Your task to perform on an android device: open app "Nova Launcher" Image 0: 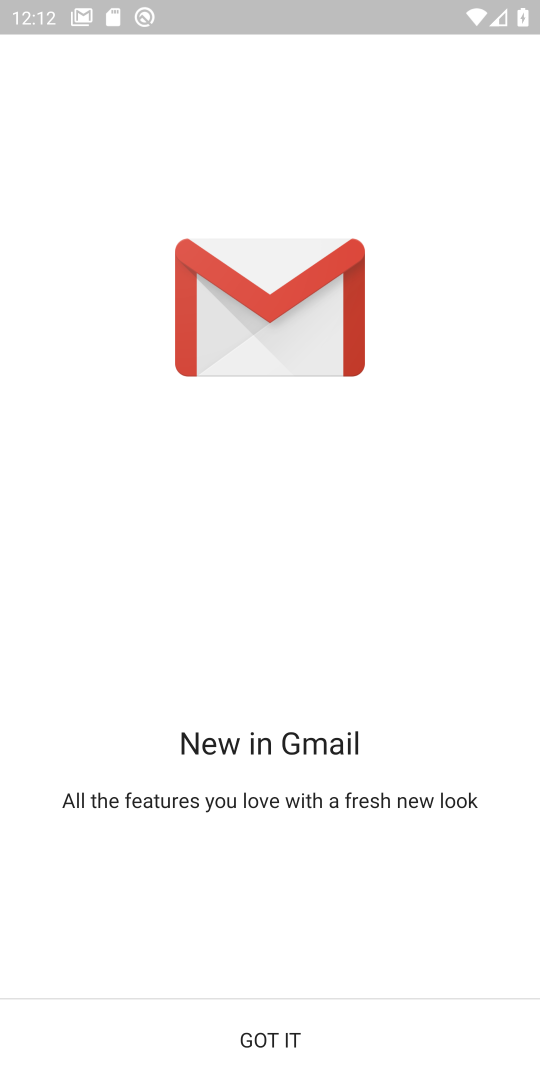
Step 0: press home button
Your task to perform on an android device: open app "Nova Launcher" Image 1: 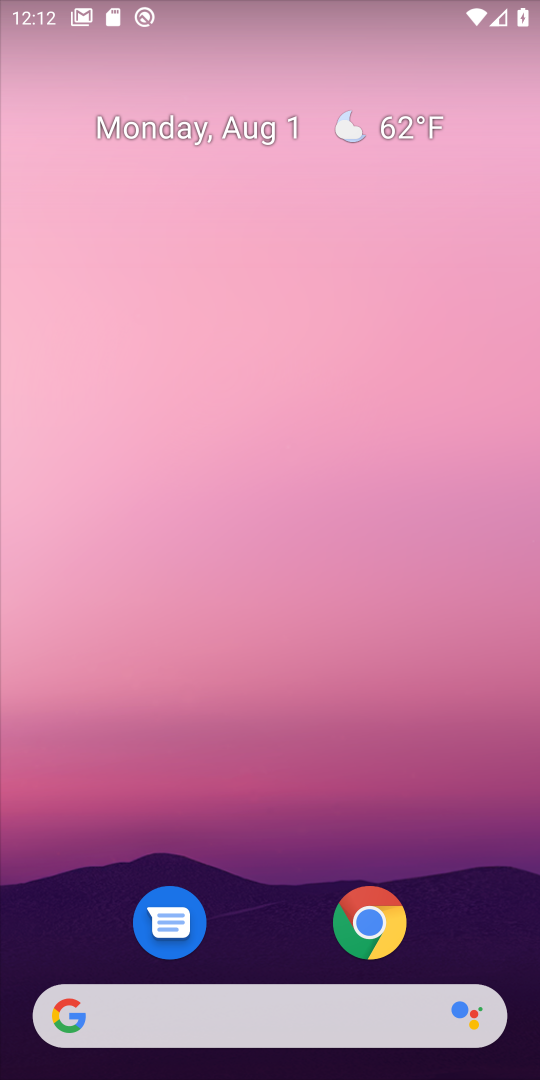
Step 1: drag from (277, 724) to (277, 263)
Your task to perform on an android device: open app "Nova Launcher" Image 2: 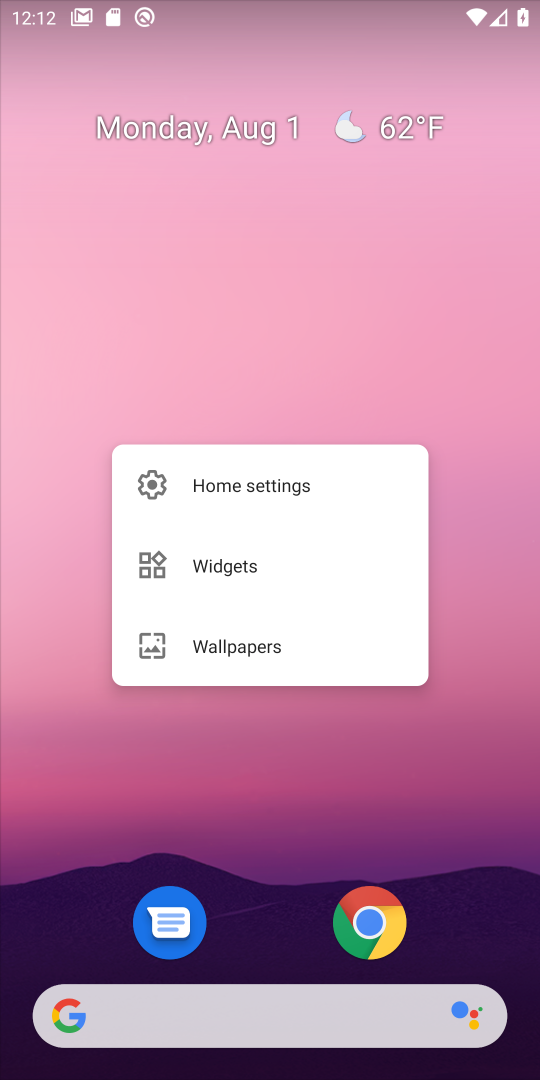
Step 2: click (294, 758)
Your task to perform on an android device: open app "Nova Launcher" Image 3: 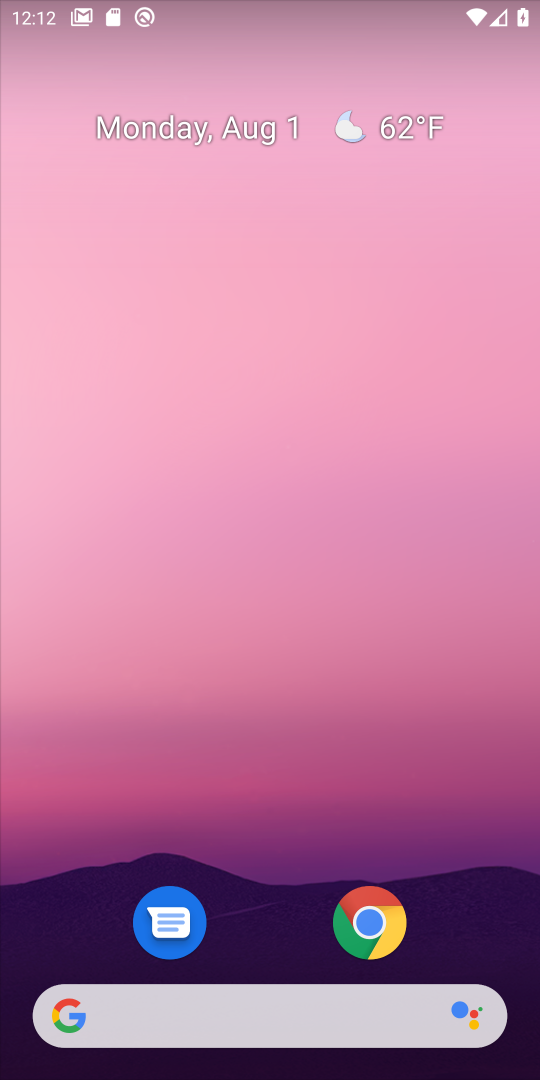
Step 3: drag from (259, 870) to (285, 197)
Your task to perform on an android device: open app "Nova Launcher" Image 4: 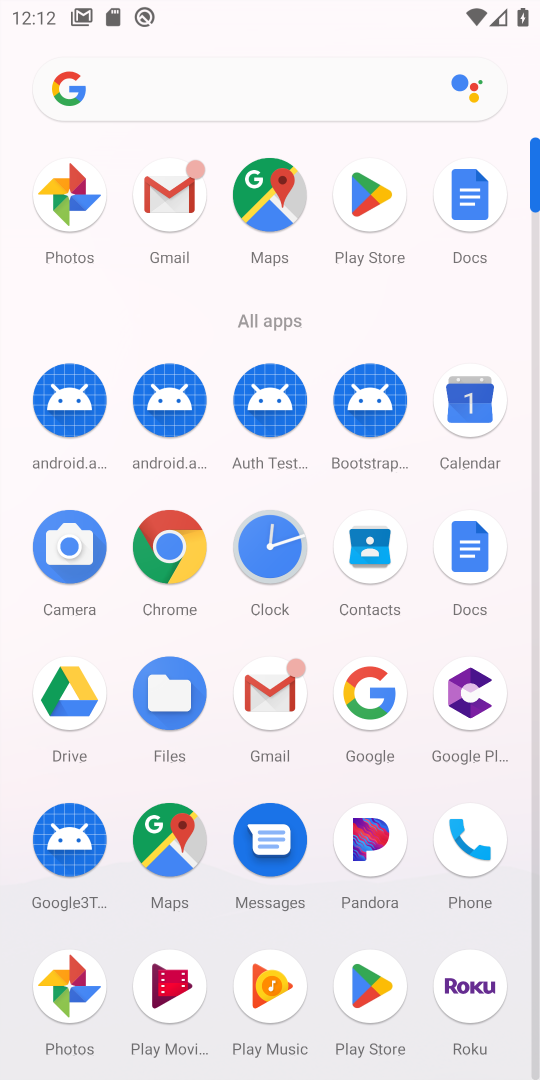
Step 4: click (348, 242)
Your task to perform on an android device: open app "Nova Launcher" Image 5: 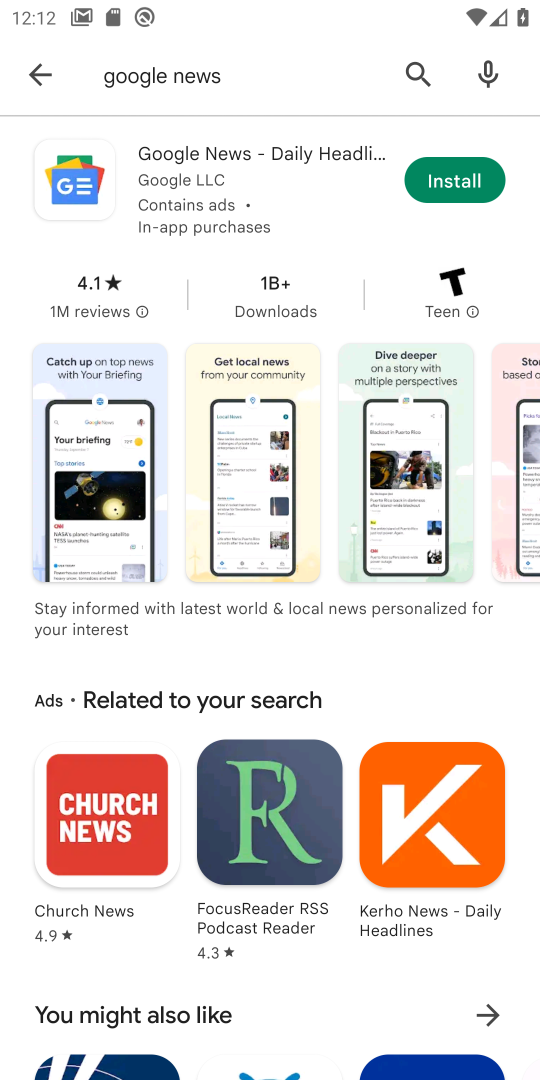
Step 5: click (397, 67)
Your task to perform on an android device: open app "Nova Launcher" Image 6: 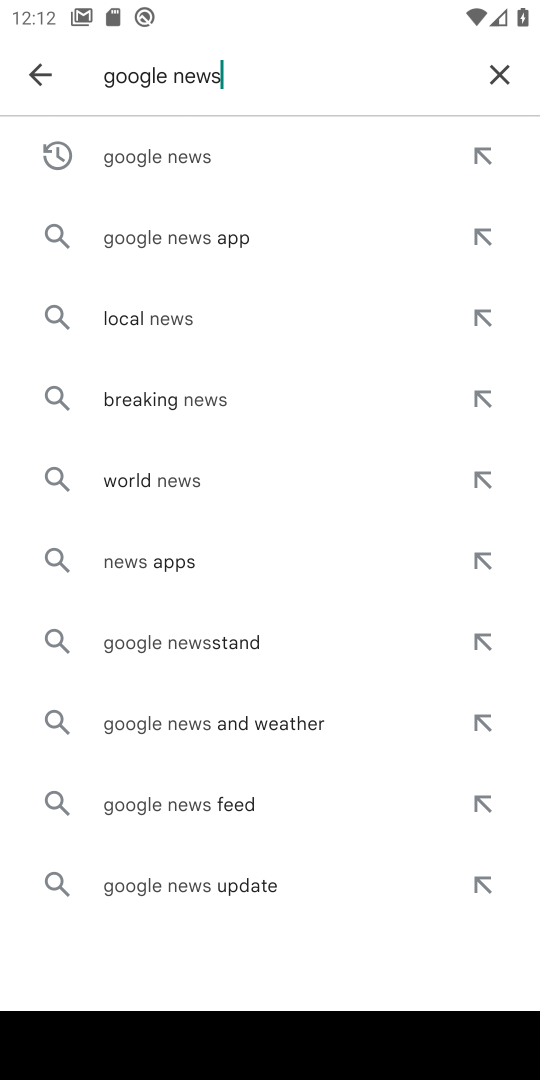
Step 6: click (490, 72)
Your task to perform on an android device: open app "Nova Launcher" Image 7: 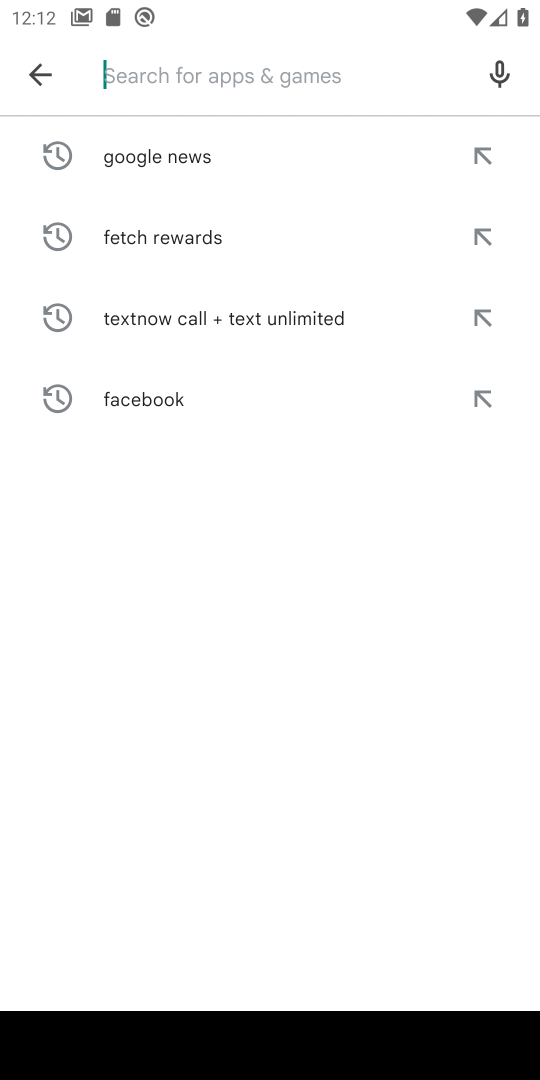
Step 7: type "Nova Launcher"
Your task to perform on an android device: open app "Nova Launcher" Image 8: 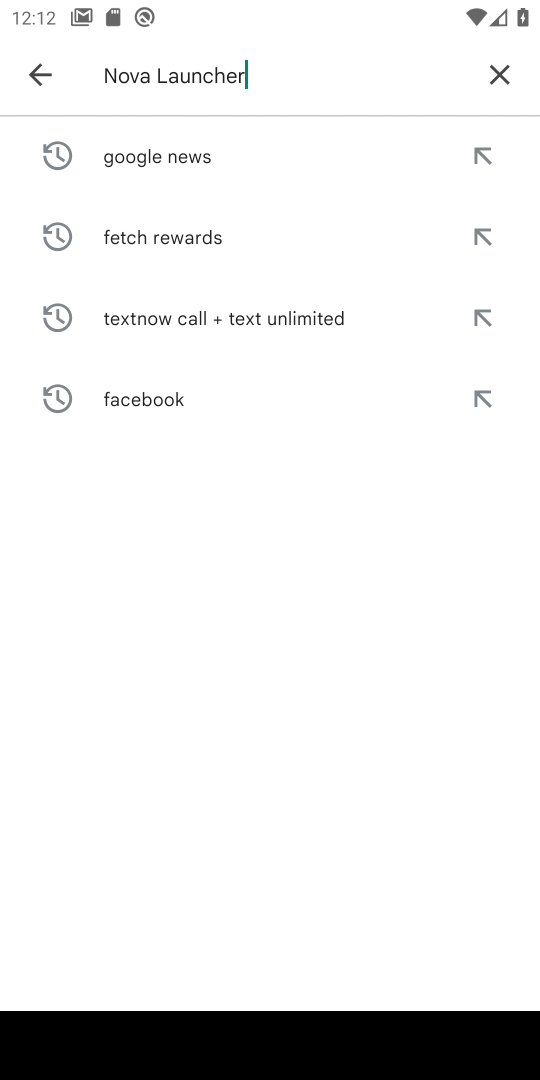
Step 8: type ""
Your task to perform on an android device: open app "Nova Launcher" Image 9: 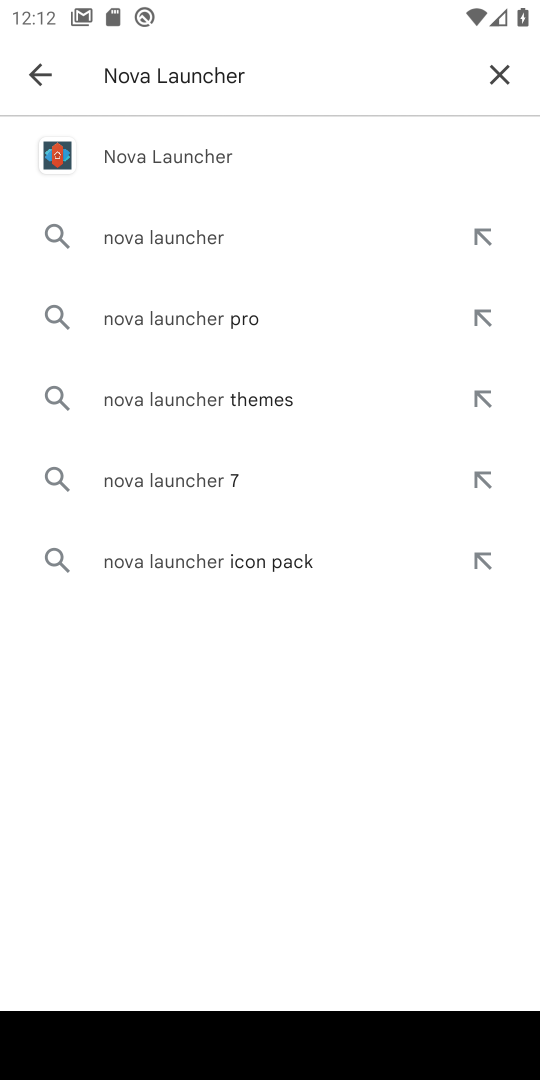
Step 9: click (204, 170)
Your task to perform on an android device: open app "Nova Launcher" Image 10: 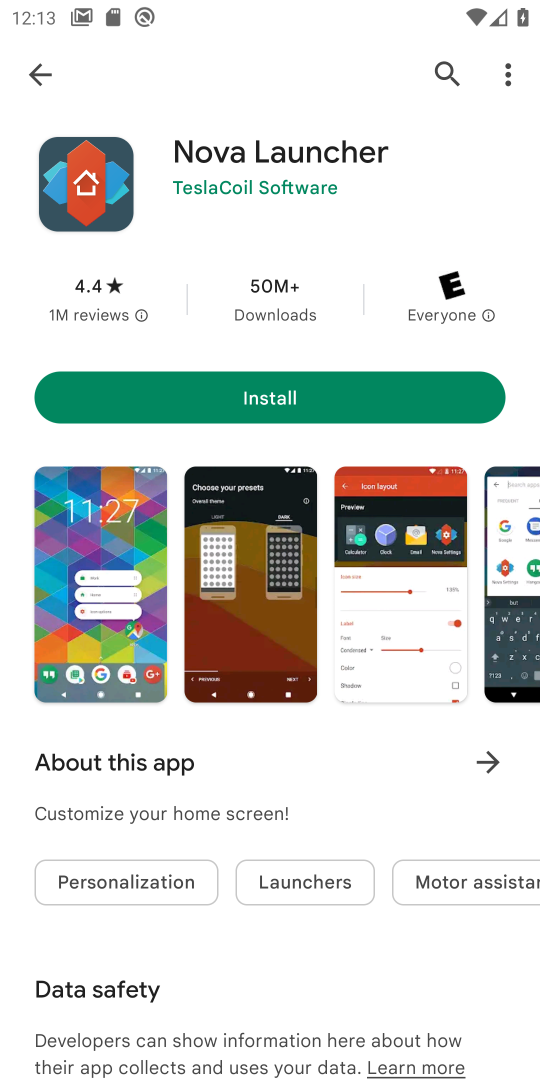
Step 10: task complete